Your task to perform on an android device: Search for sushi restaurants on Maps Image 0: 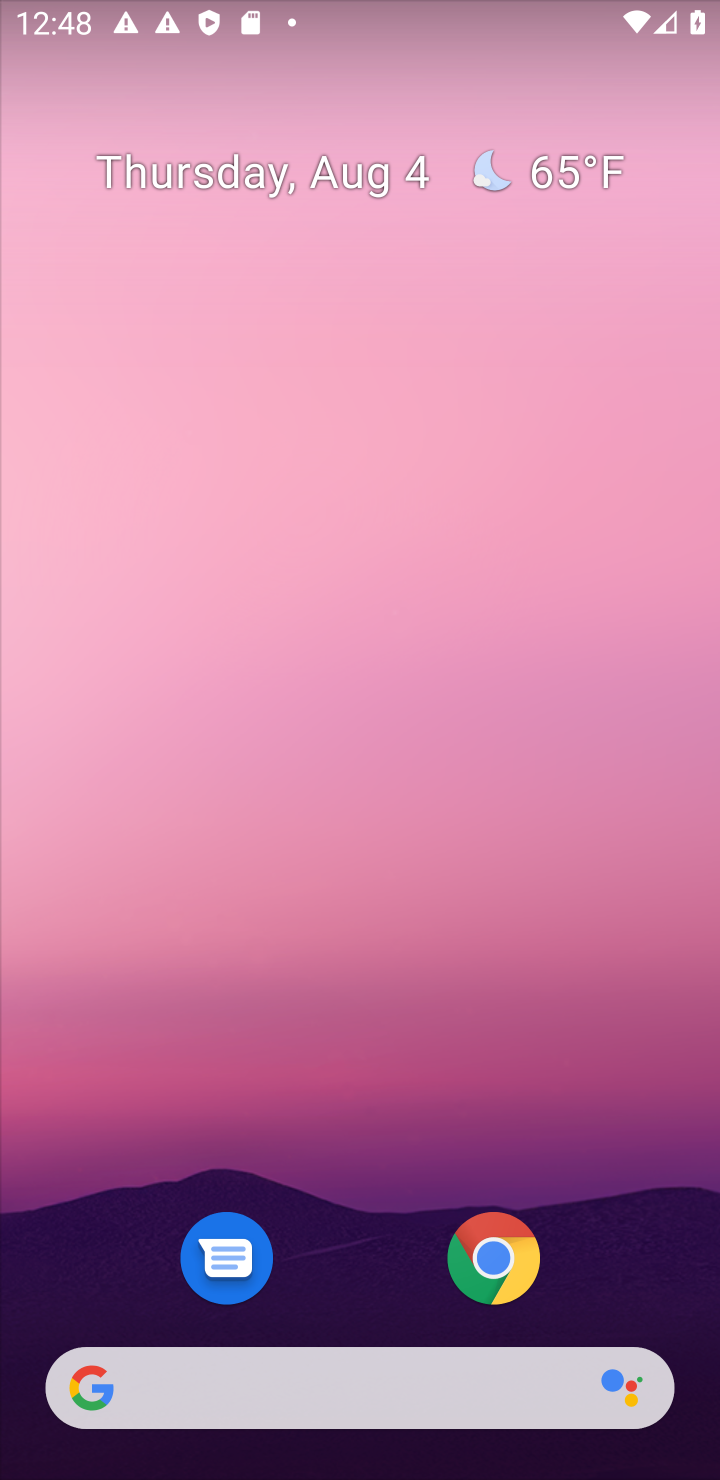
Step 0: drag from (325, 921) to (328, 389)
Your task to perform on an android device: Search for sushi restaurants on Maps Image 1: 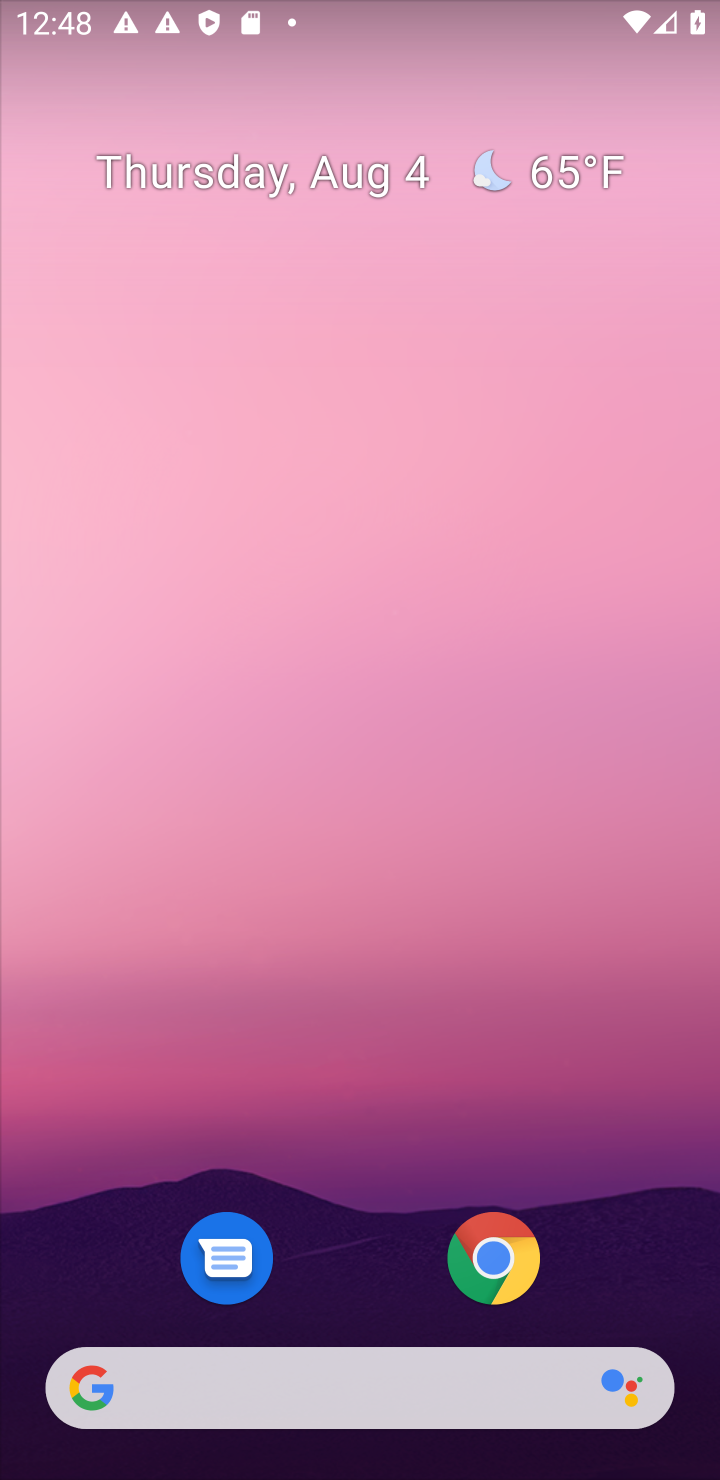
Step 1: drag from (313, 1077) to (622, 35)
Your task to perform on an android device: Search for sushi restaurants on Maps Image 2: 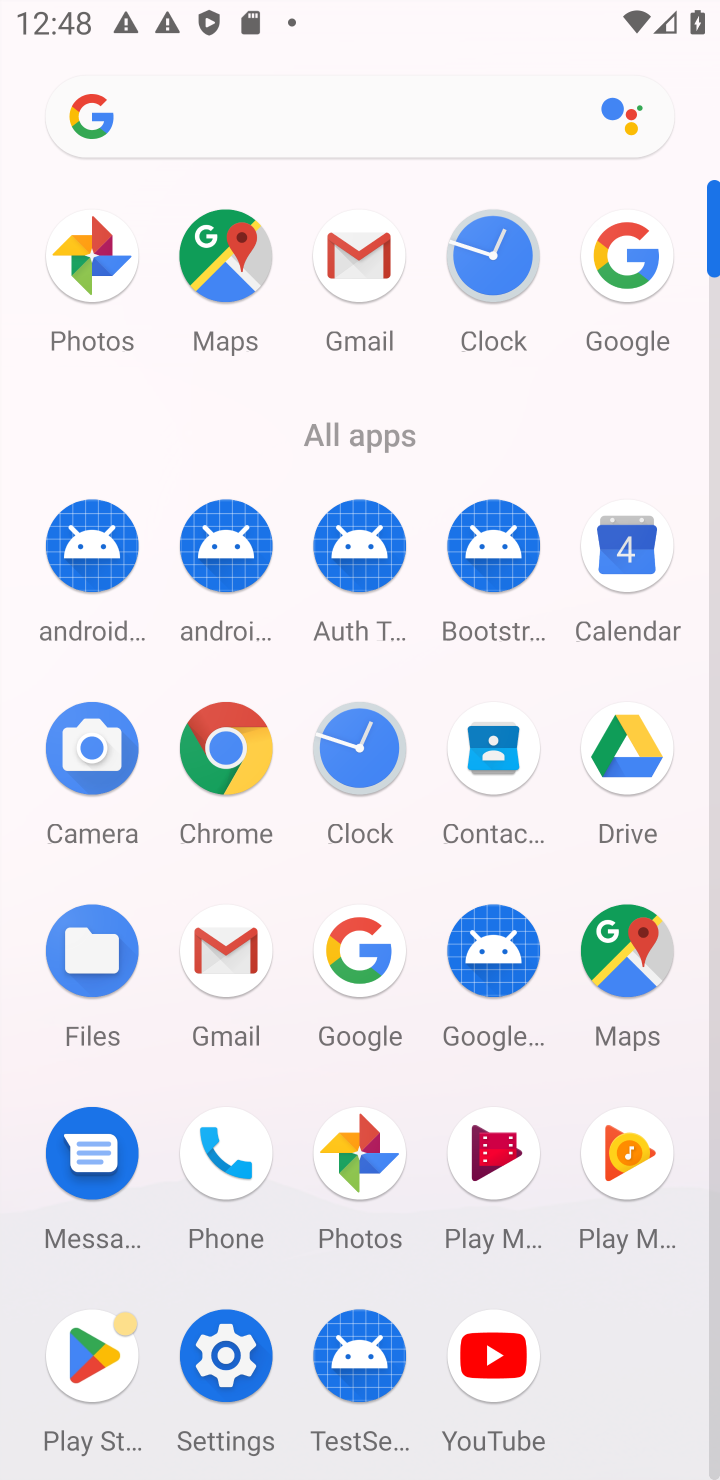
Step 2: click (615, 997)
Your task to perform on an android device: Search for sushi restaurants on Maps Image 3: 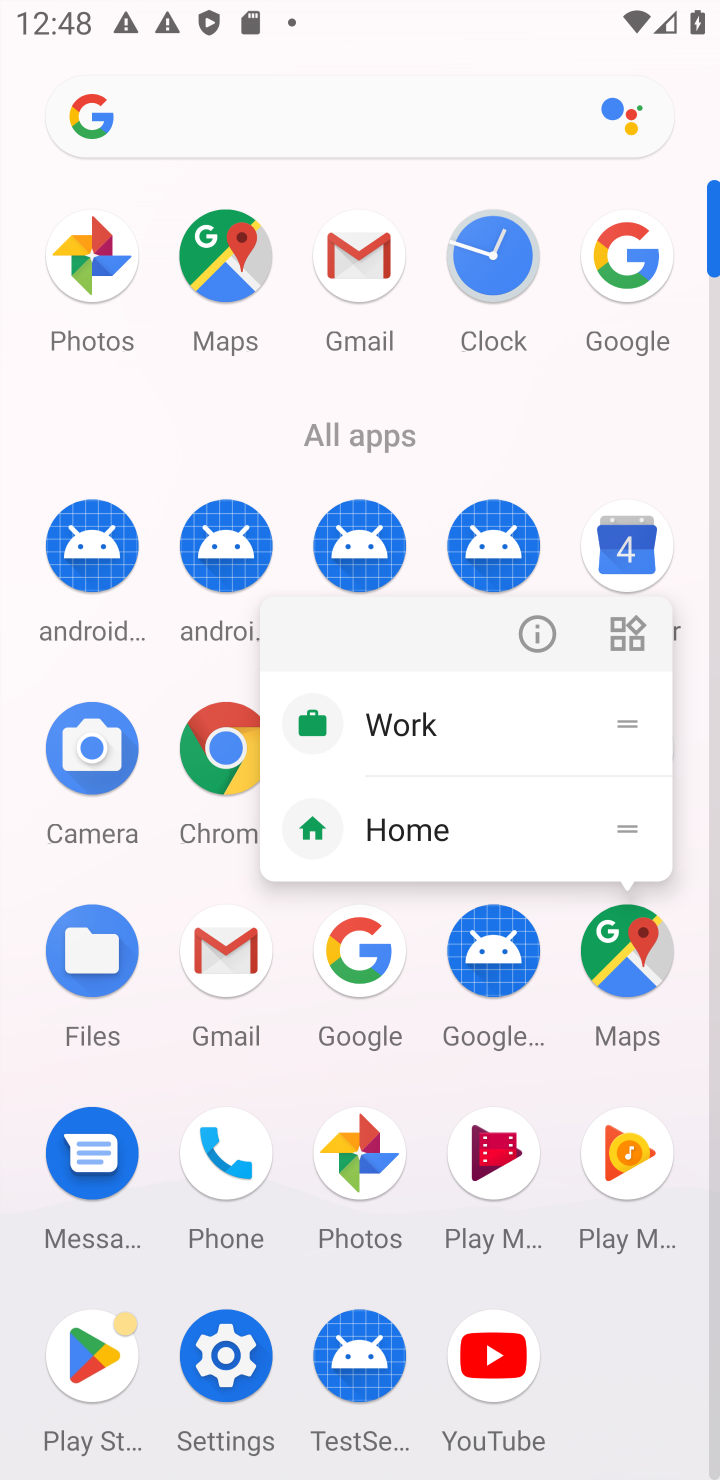
Step 3: click (615, 997)
Your task to perform on an android device: Search for sushi restaurants on Maps Image 4: 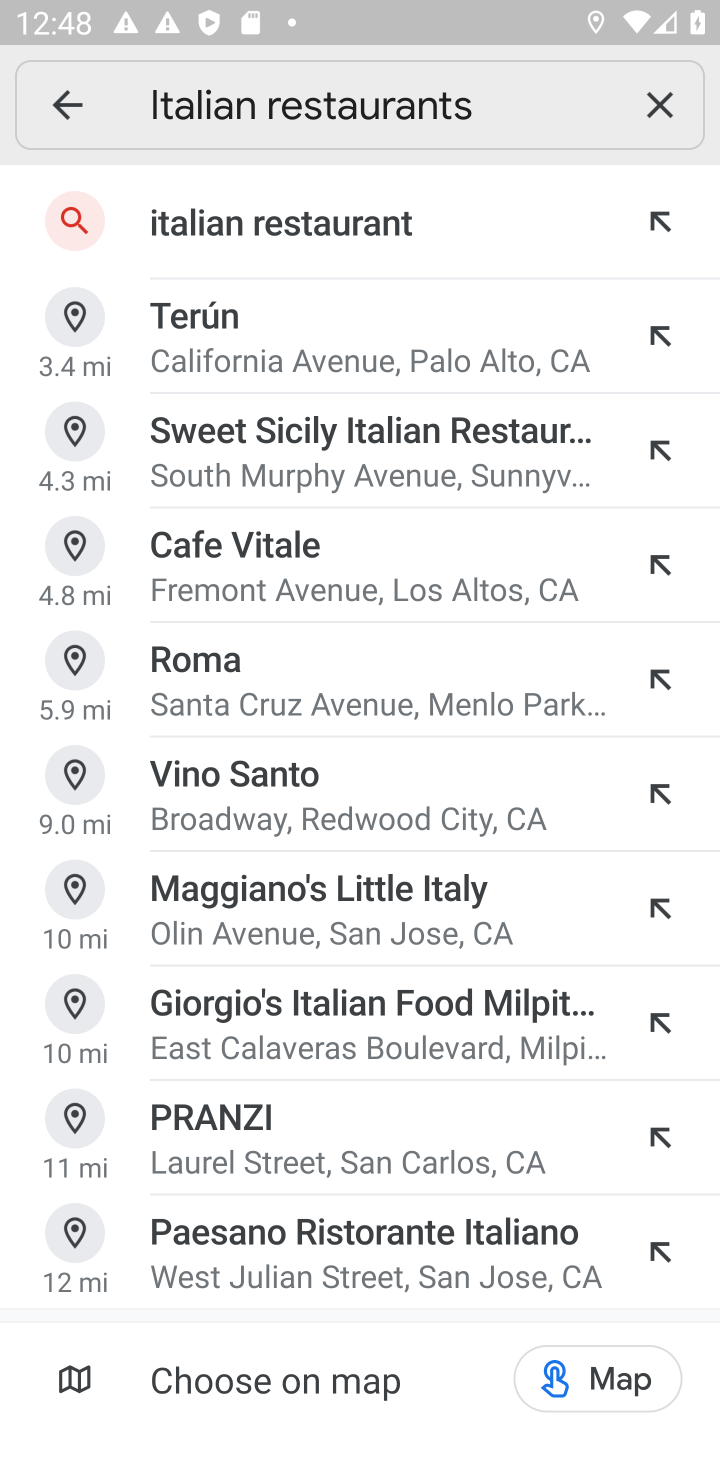
Step 4: click (654, 113)
Your task to perform on an android device: Search for sushi restaurants on Maps Image 5: 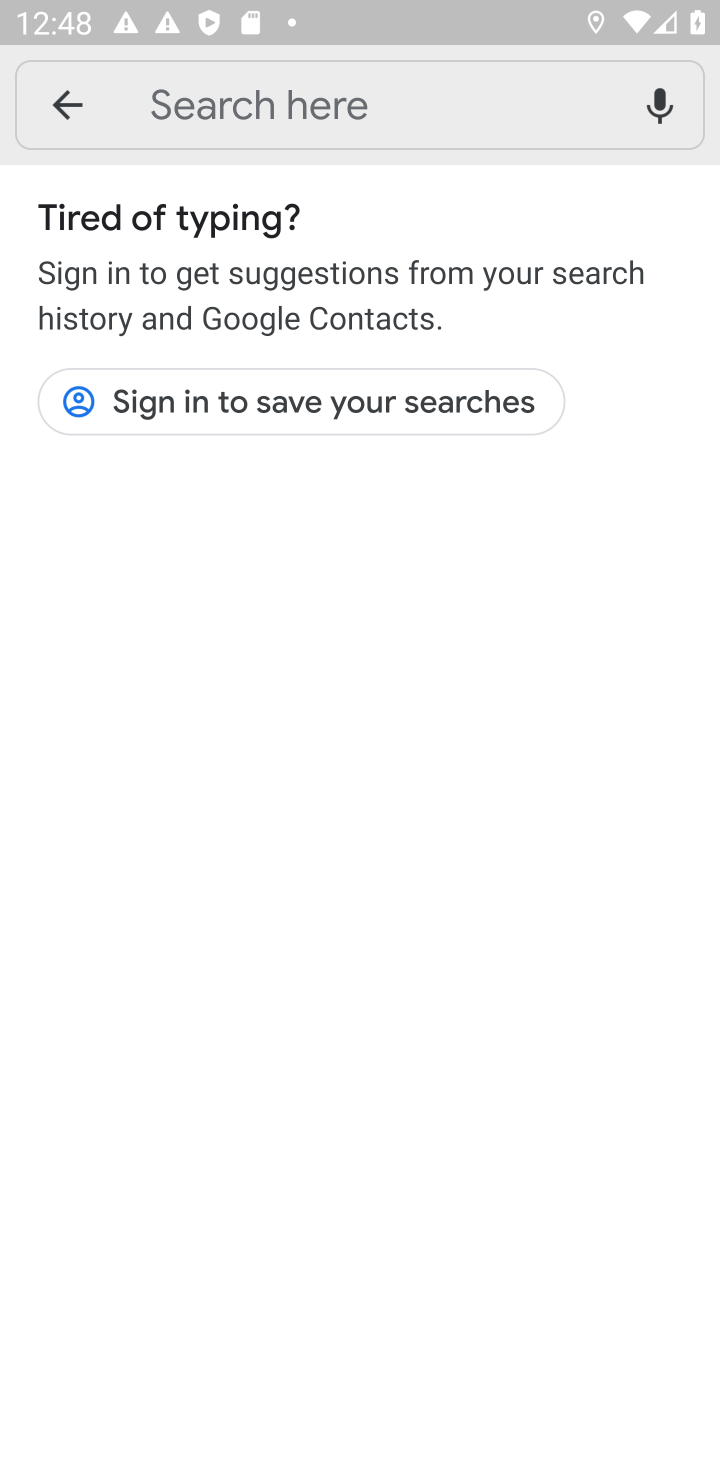
Step 5: click (63, 87)
Your task to perform on an android device: Search for sushi restaurants on Maps Image 6: 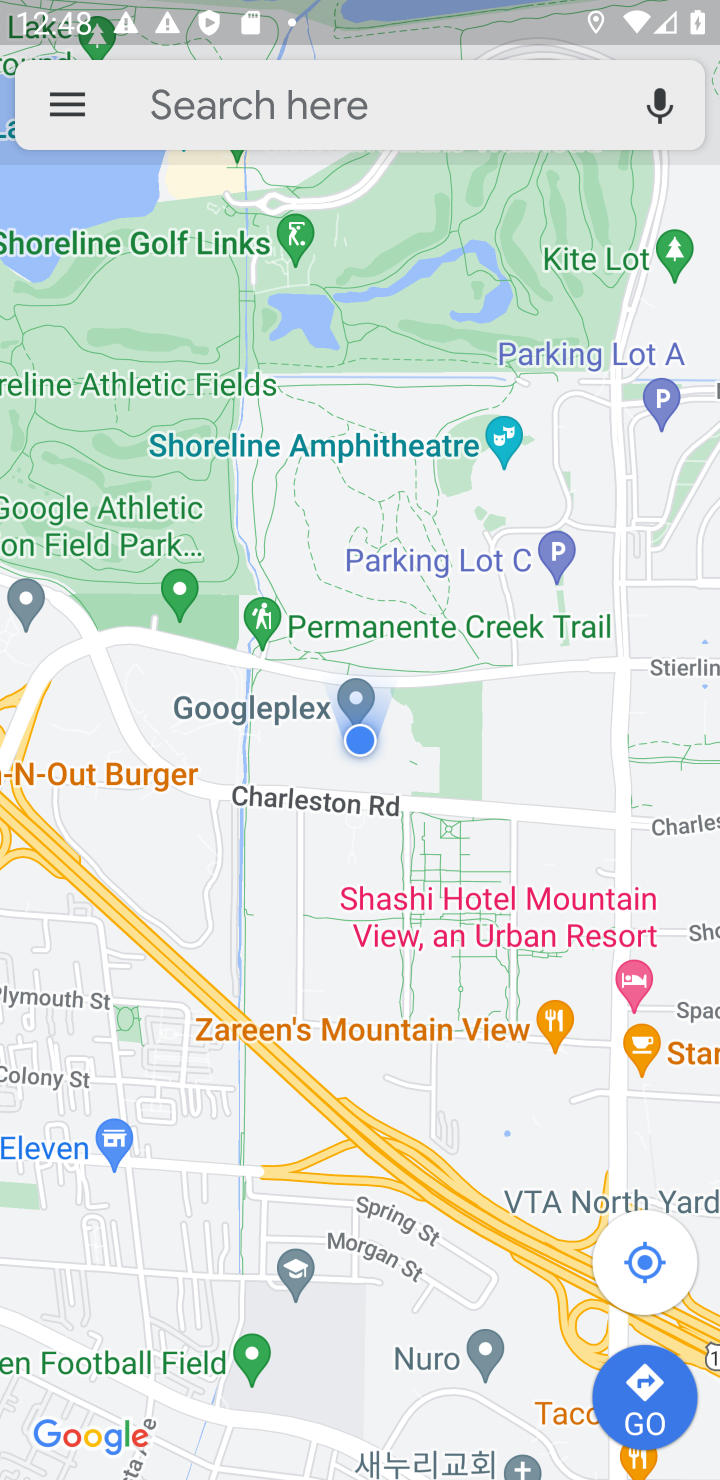
Step 6: click (210, 100)
Your task to perform on an android device: Search for sushi restaurants on Maps Image 7: 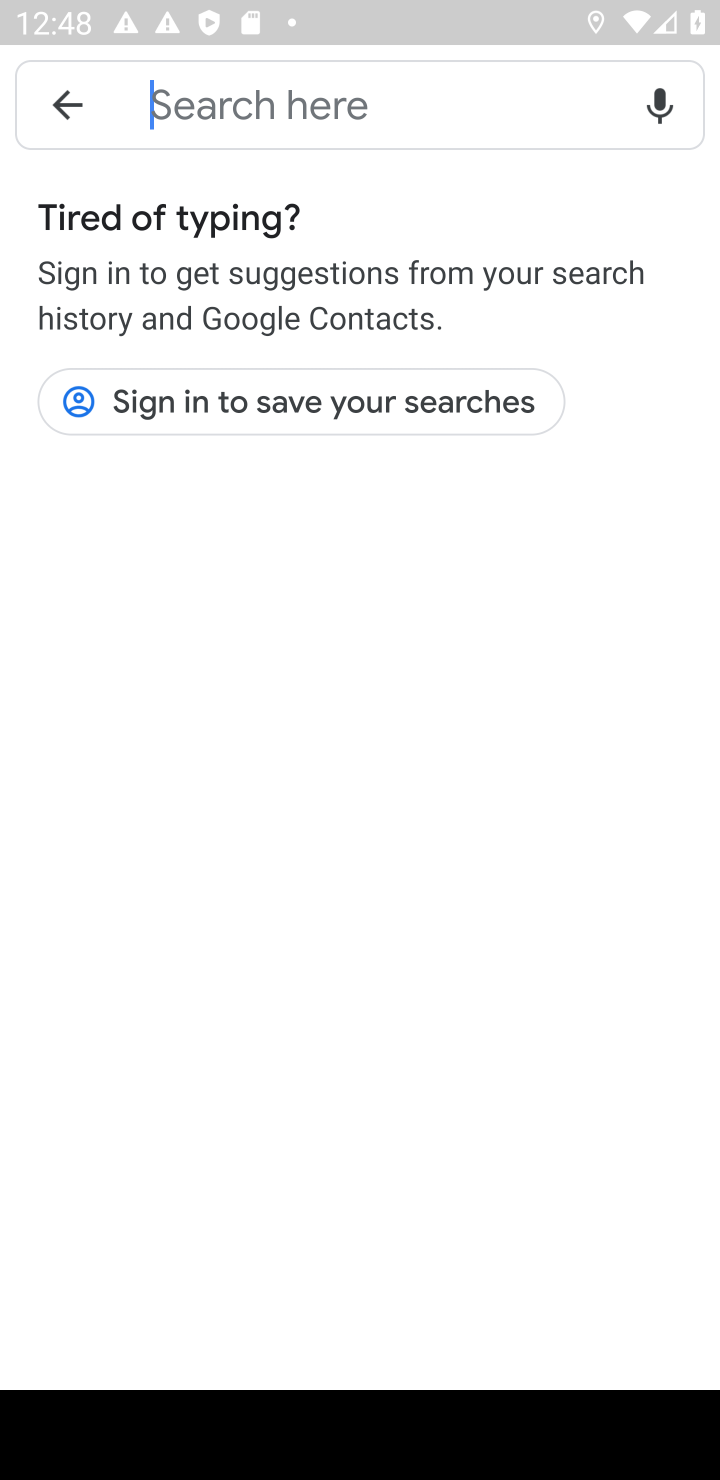
Step 7: type "sushi restaurants"
Your task to perform on an android device: Search for sushi restaurants on Maps Image 8: 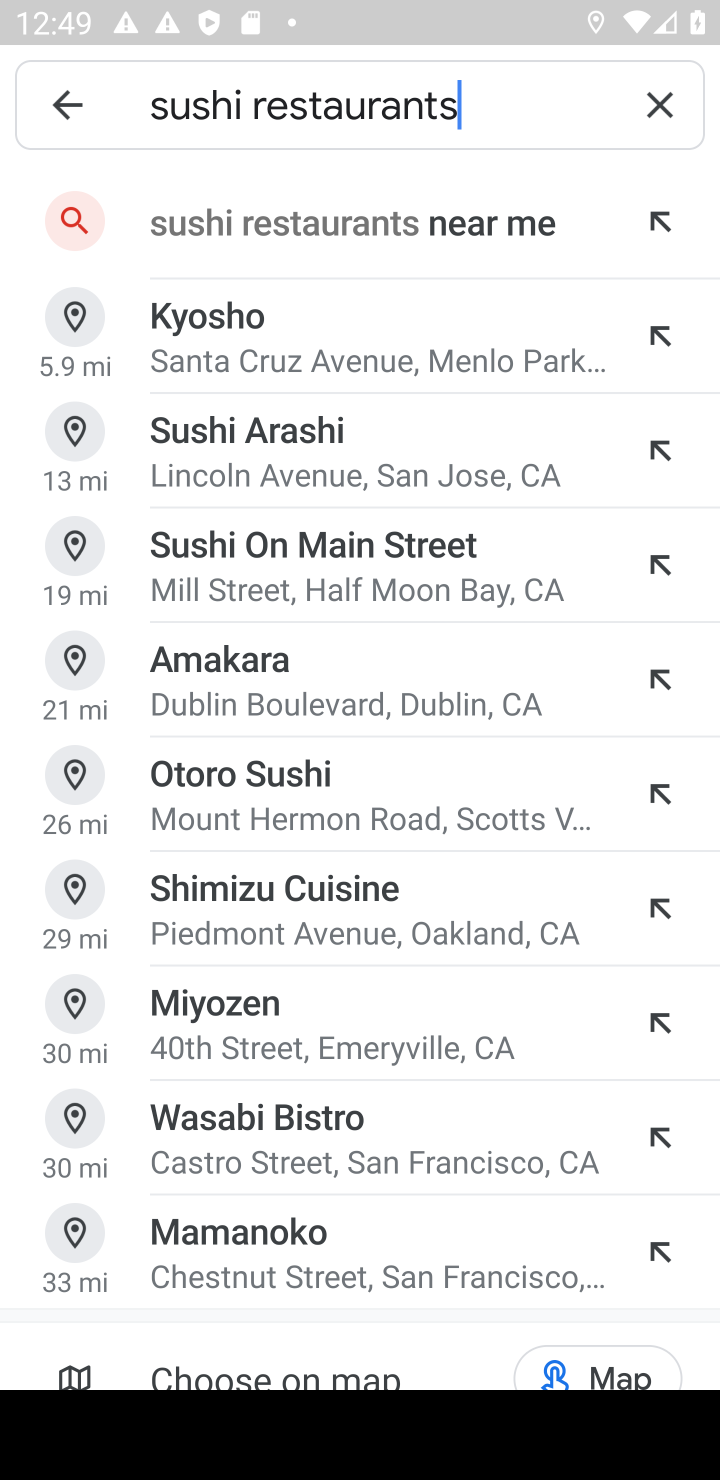
Step 8: click (328, 223)
Your task to perform on an android device: Search for sushi restaurants on Maps Image 9: 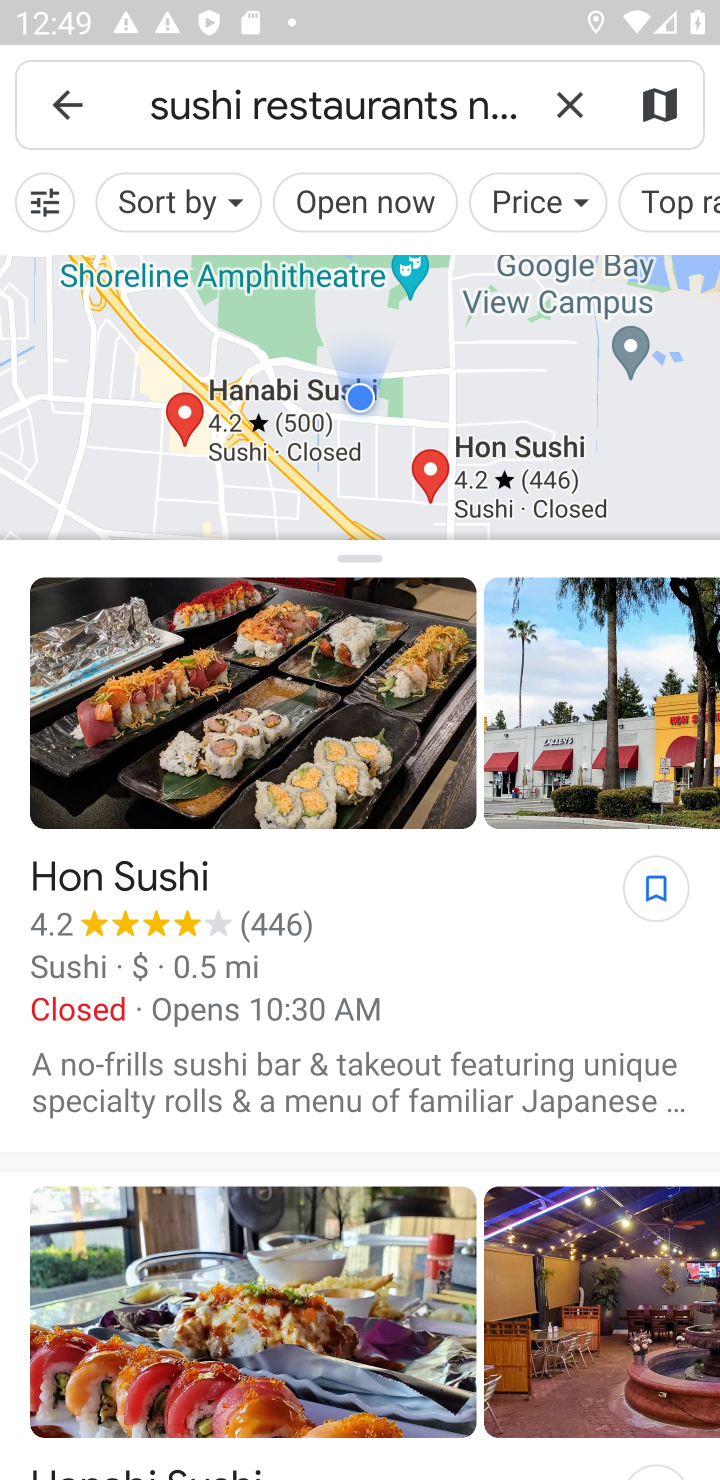
Step 9: task complete